Your task to perform on an android device: check google app version Image 0: 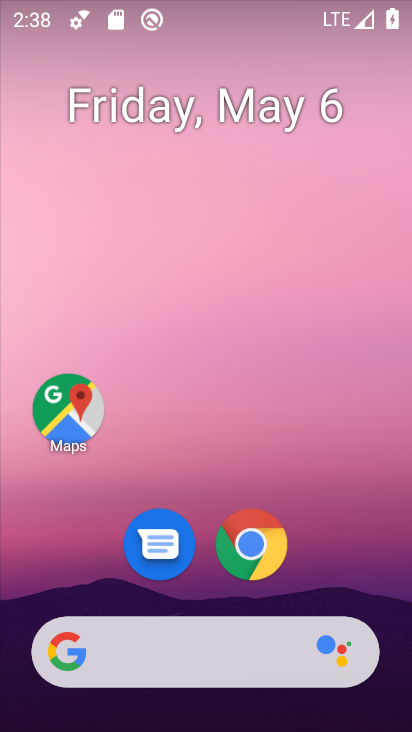
Step 0: click (342, 236)
Your task to perform on an android device: check google app version Image 1: 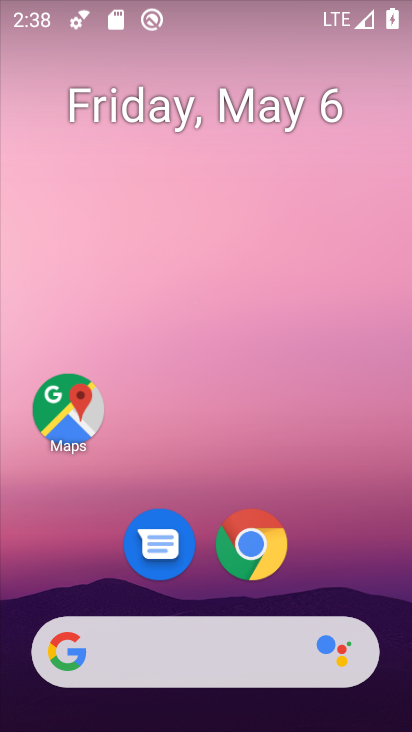
Step 1: drag from (396, 649) to (404, 137)
Your task to perform on an android device: check google app version Image 2: 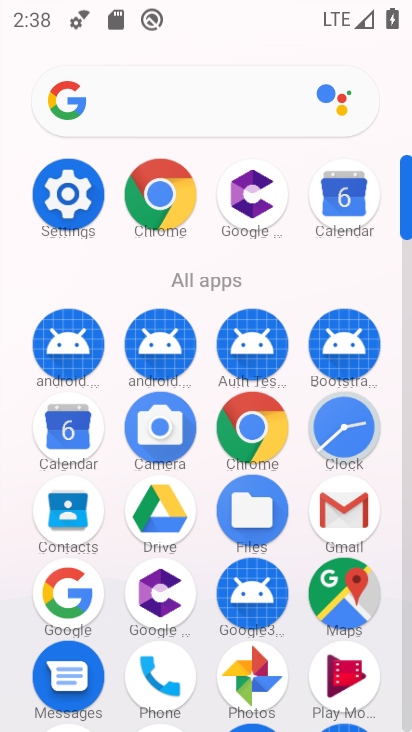
Step 2: click (62, 607)
Your task to perform on an android device: check google app version Image 3: 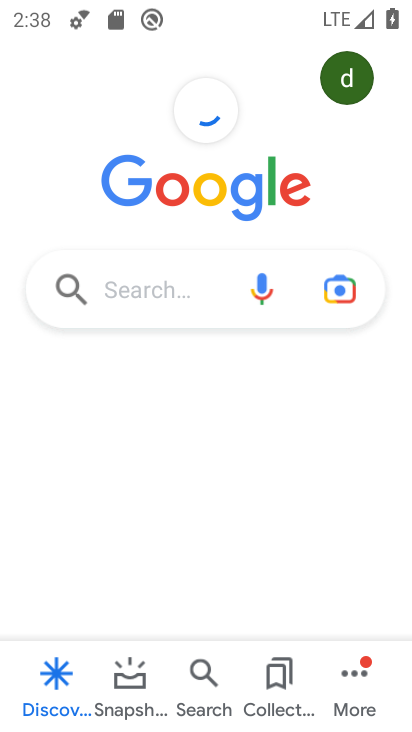
Step 3: click (355, 693)
Your task to perform on an android device: check google app version Image 4: 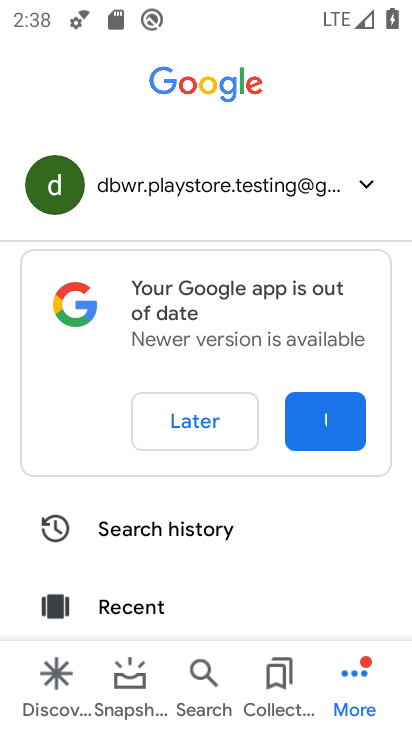
Step 4: click (354, 676)
Your task to perform on an android device: check google app version Image 5: 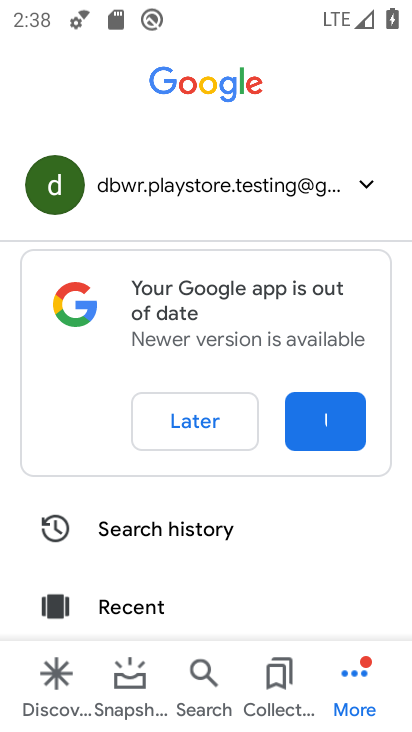
Step 5: click (347, 705)
Your task to perform on an android device: check google app version Image 6: 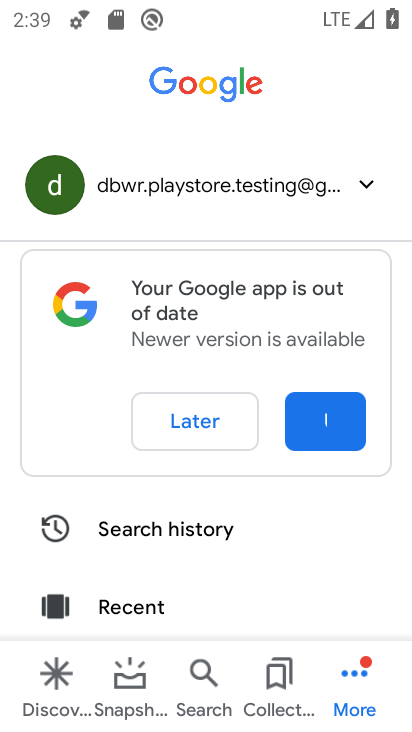
Step 6: drag from (244, 575) to (216, 324)
Your task to perform on an android device: check google app version Image 7: 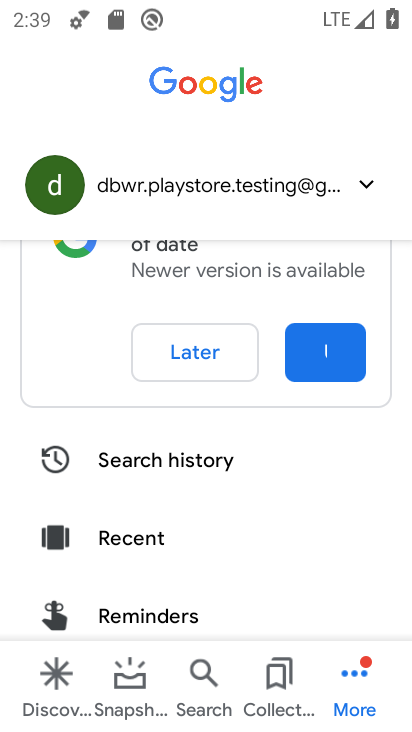
Step 7: drag from (242, 583) to (231, 403)
Your task to perform on an android device: check google app version Image 8: 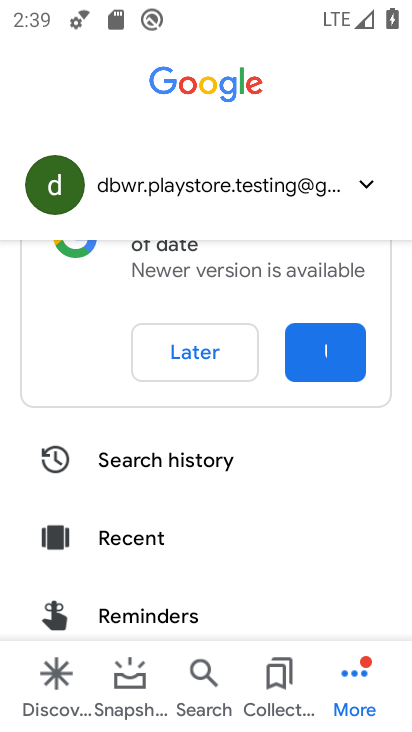
Step 8: drag from (231, 612) to (215, 420)
Your task to perform on an android device: check google app version Image 9: 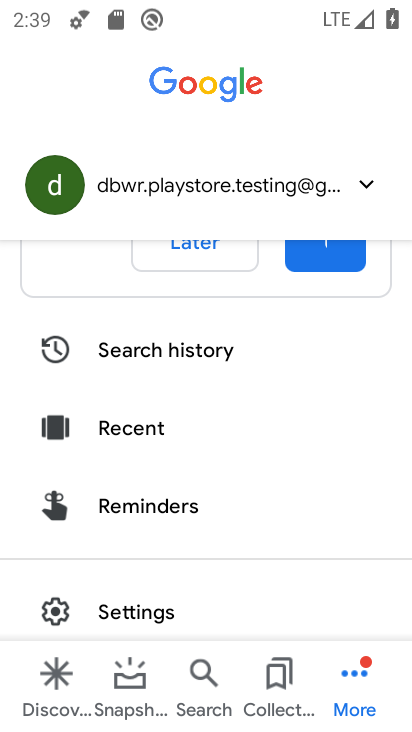
Step 9: drag from (236, 593) to (227, 324)
Your task to perform on an android device: check google app version Image 10: 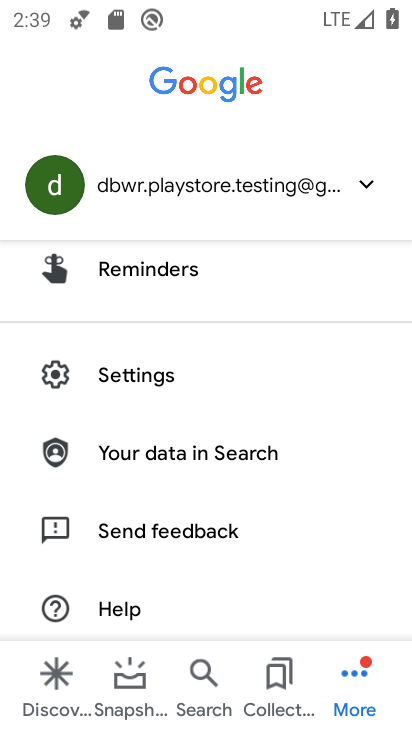
Step 10: click (121, 367)
Your task to perform on an android device: check google app version Image 11: 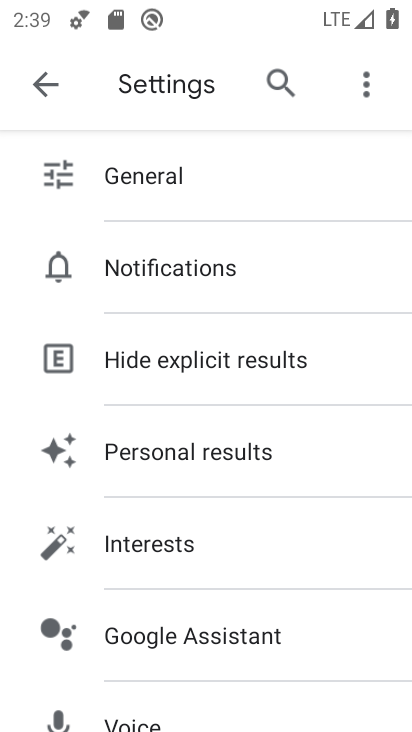
Step 11: drag from (297, 700) to (280, 448)
Your task to perform on an android device: check google app version Image 12: 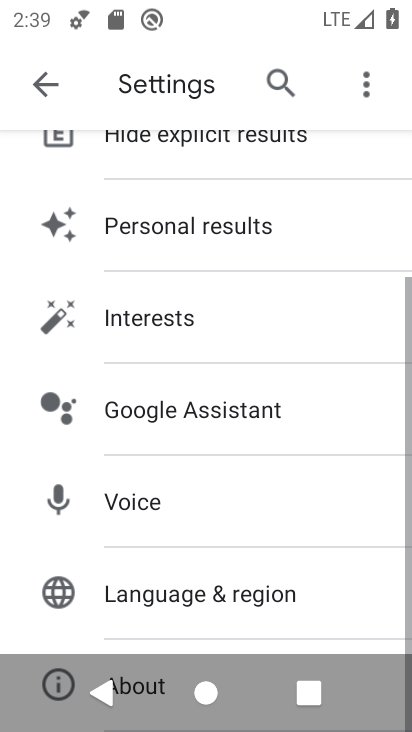
Step 12: drag from (290, 407) to (297, 569)
Your task to perform on an android device: check google app version Image 13: 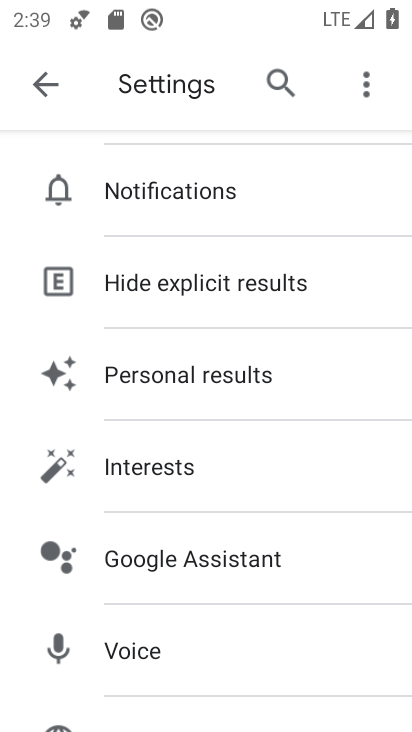
Step 13: drag from (248, 624) to (244, 365)
Your task to perform on an android device: check google app version Image 14: 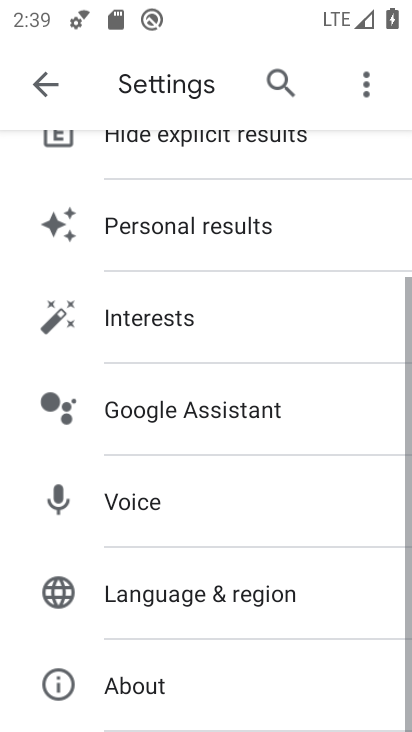
Step 14: click (147, 686)
Your task to perform on an android device: check google app version Image 15: 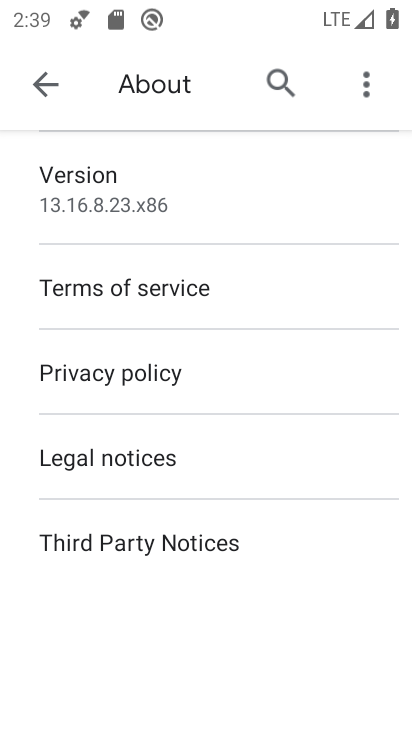
Step 15: click (106, 191)
Your task to perform on an android device: check google app version Image 16: 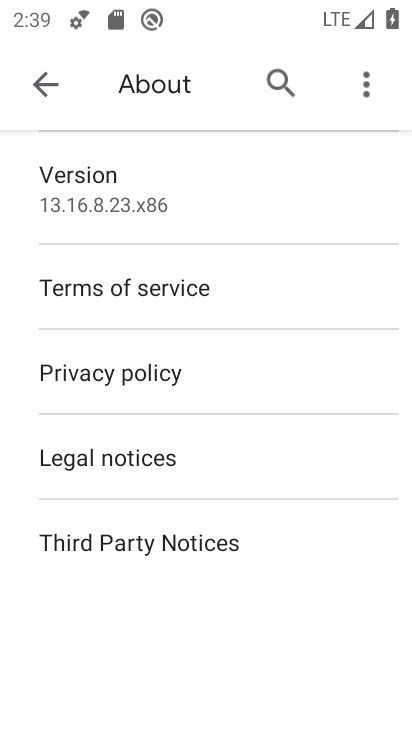
Step 16: task complete